Your task to perform on an android device: Open the map Image 0: 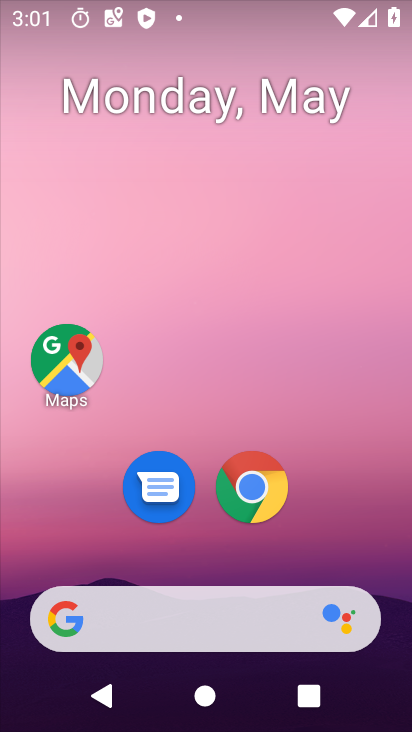
Step 0: drag from (227, 553) to (271, 0)
Your task to perform on an android device: Open the map Image 1: 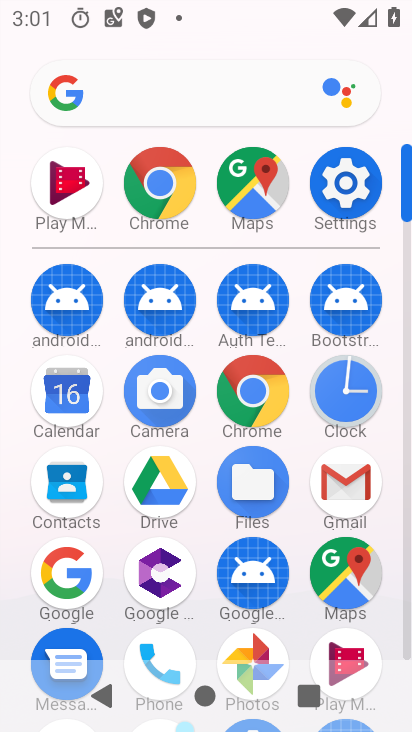
Step 1: click (344, 567)
Your task to perform on an android device: Open the map Image 2: 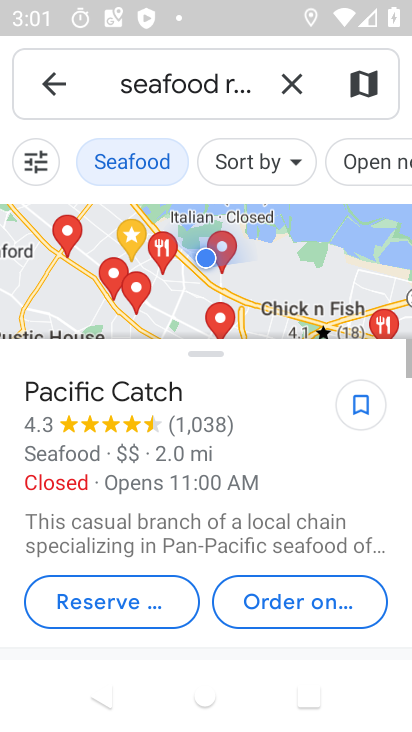
Step 2: click (47, 79)
Your task to perform on an android device: Open the map Image 3: 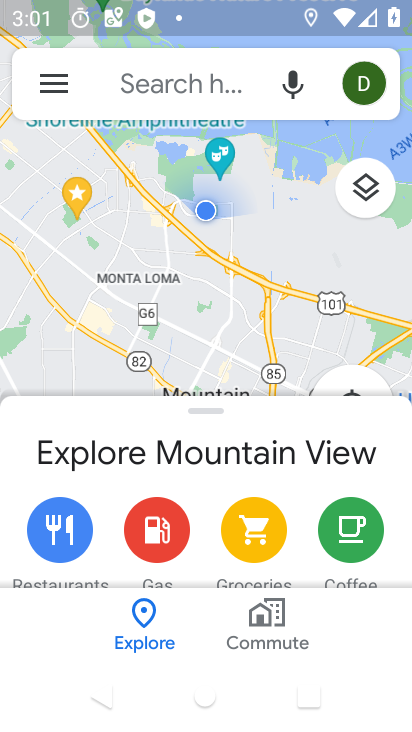
Step 3: task complete